Your task to perform on an android device: turn on javascript in the chrome app Image 0: 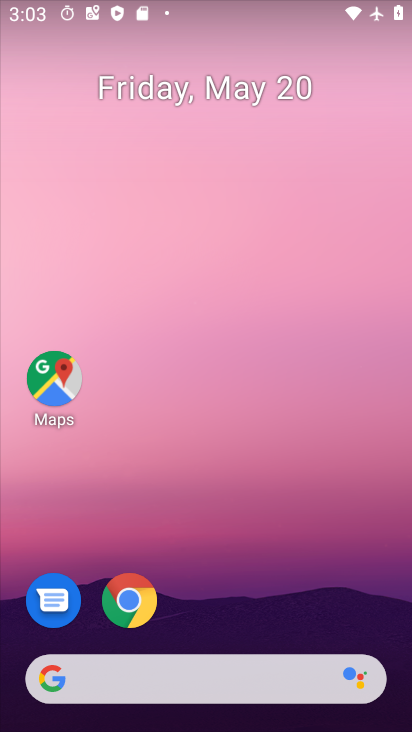
Step 0: drag from (238, 498) to (219, 46)
Your task to perform on an android device: turn on javascript in the chrome app Image 1: 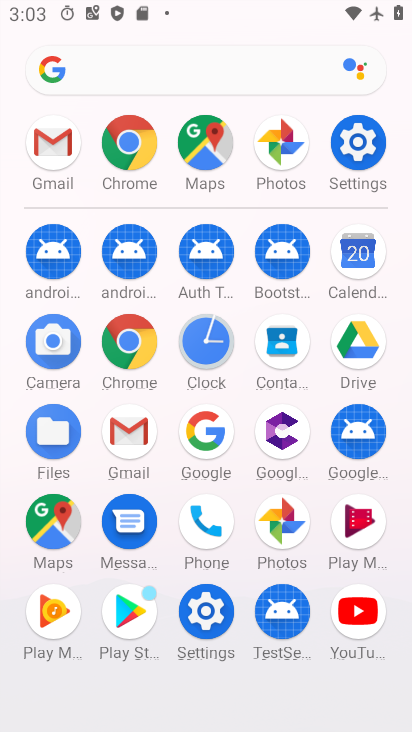
Step 1: drag from (6, 560) to (19, 265)
Your task to perform on an android device: turn on javascript in the chrome app Image 2: 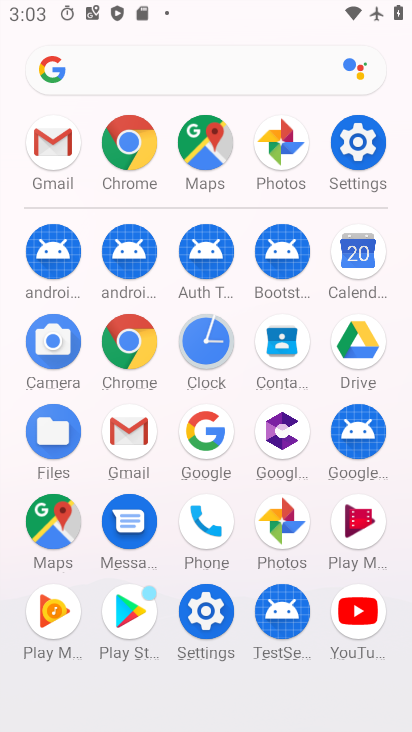
Step 2: click (126, 335)
Your task to perform on an android device: turn on javascript in the chrome app Image 3: 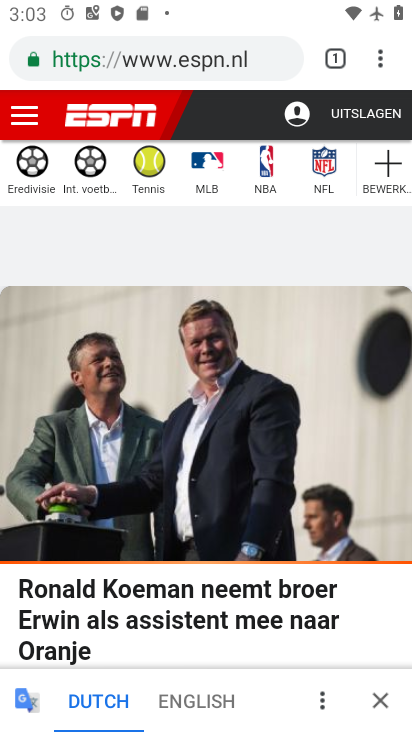
Step 3: drag from (379, 56) to (182, 625)
Your task to perform on an android device: turn on javascript in the chrome app Image 4: 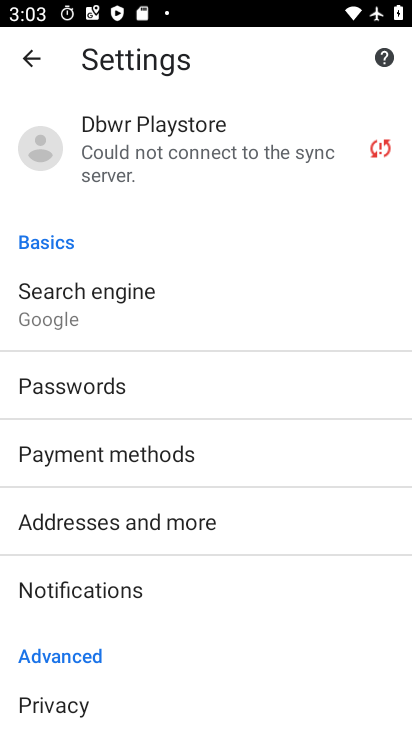
Step 4: drag from (218, 577) to (257, 251)
Your task to perform on an android device: turn on javascript in the chrome app Image 5: 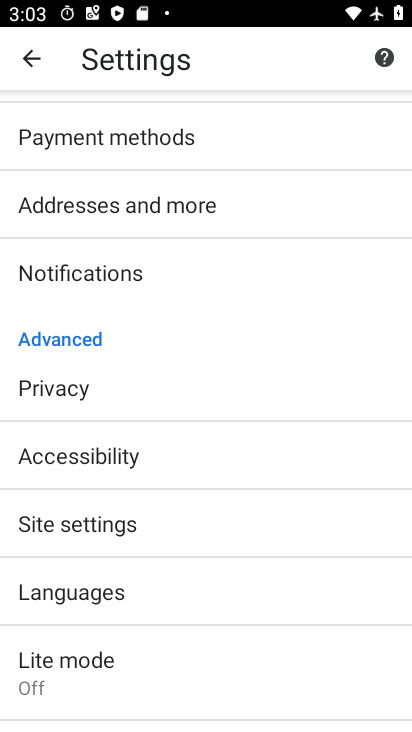
Step 5: drag from (164, 584) to (208, 265)
Your task to perform on an android device: turn on javascript in the chrome app Image 6: 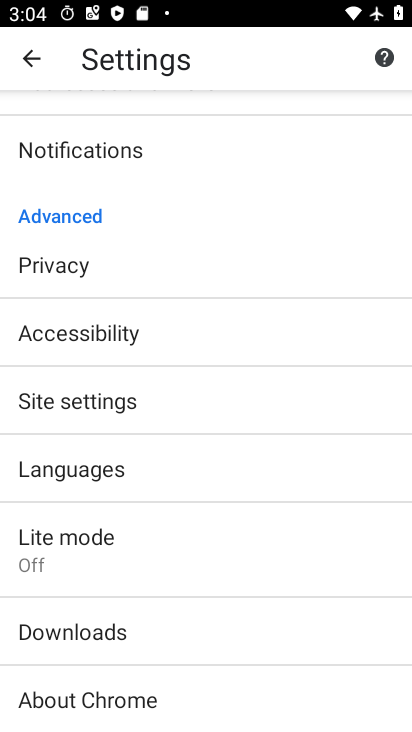
Step 6: click (135, 389)
Your task to perform on an android device: turn on javascript in the chrome app Image 7: 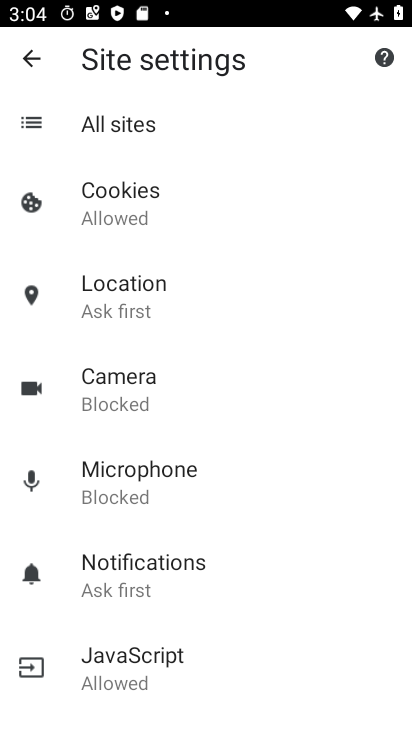
Step 7: click (127, 652)
Your task to perform on an android device: turn on javascript in the chrome app Image 8: 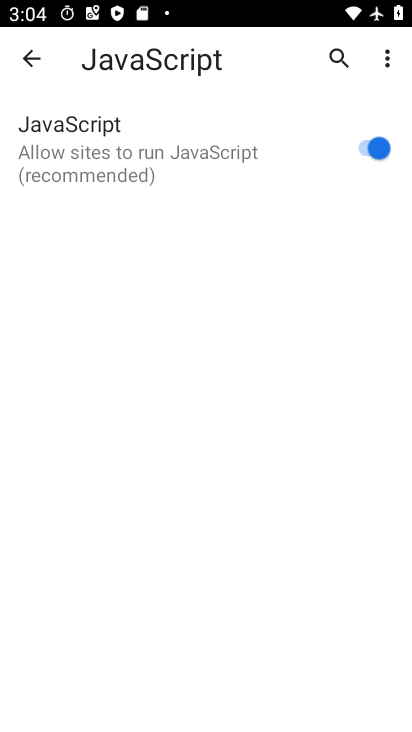
Step 8: task complete